Your task to perform on an android device: Play the last video I watched on Youtube Image 0: 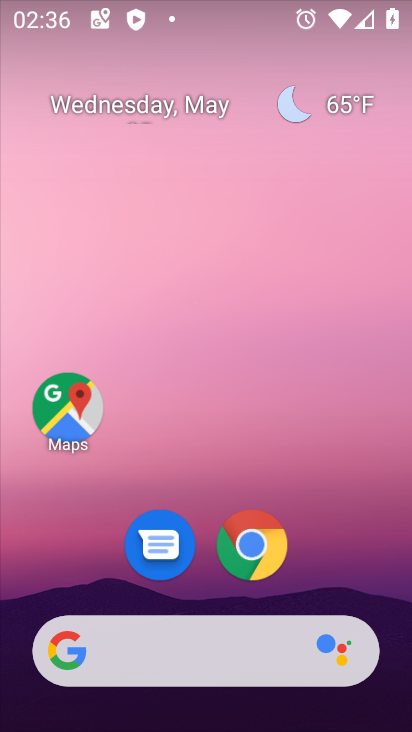
Step 0: drag from (276, 213) to (213, 38)
Your task to perform on an android device: Play the last video I watched on Youtube Image 1: 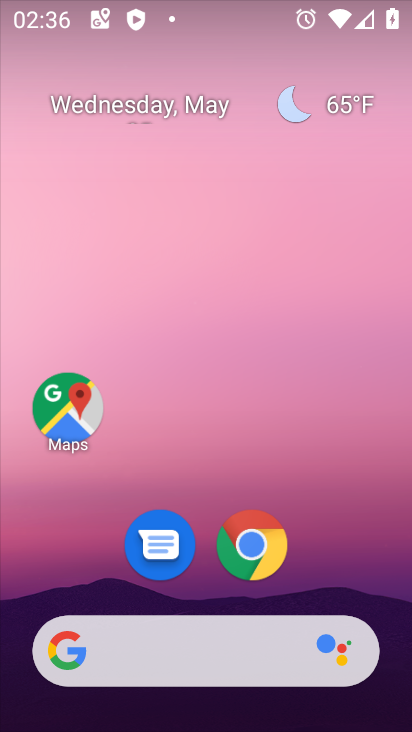
Step 1: drag from (322, 434) to (215, 52)
Your task to perform on an android device: Play the last video I watched on Youtube Image 2: 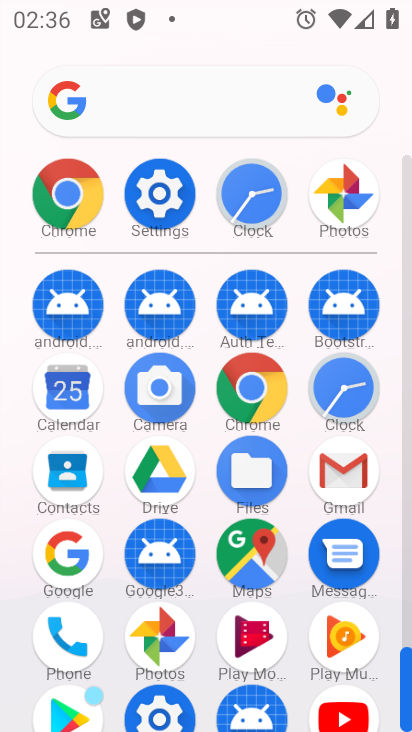
Step 2: drag from (309, 629) to (284, 184)
Your task to perform on an android device: Play the last video I watched on Youtube Image 3: 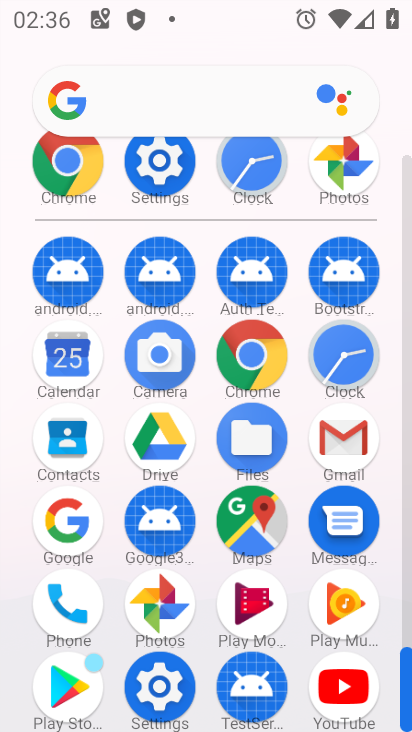
Step 3: click (336, 694)
Your task to perform on an android device: Play the last video I watched on Youtube Image 4: 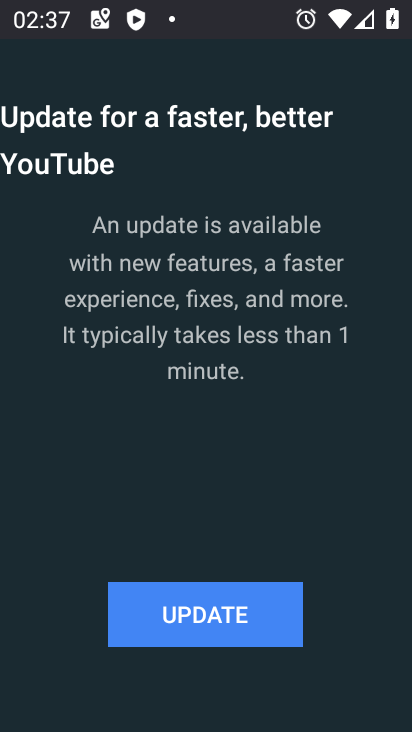
Step 4: click (248, 613)
Your task to perform on an android device: Play the last video I watched on Youtube Image 5: 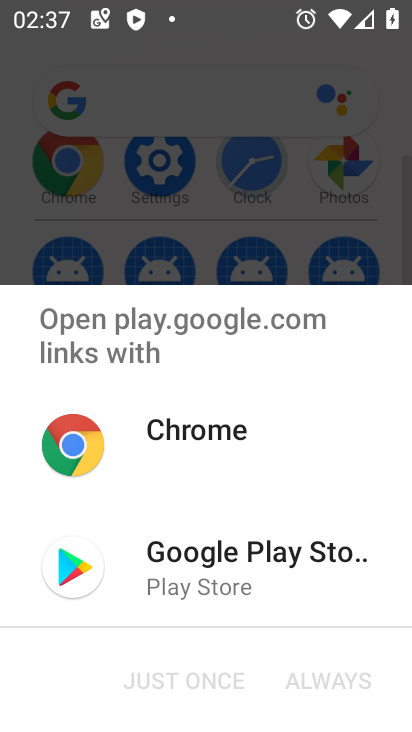
Step 5: click (194, 572)
Your task to perform on an android device: Play the last video I watched on Youtube Image 6: 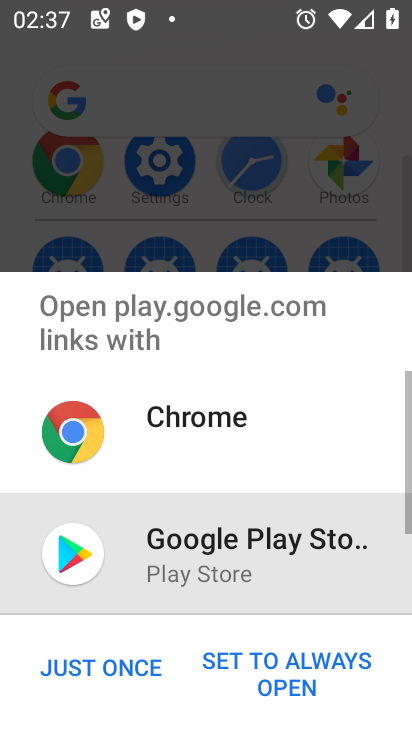
Step 6: press home button
Your task to perform on an android device: Play the last video I watched on Youtube Image 7: 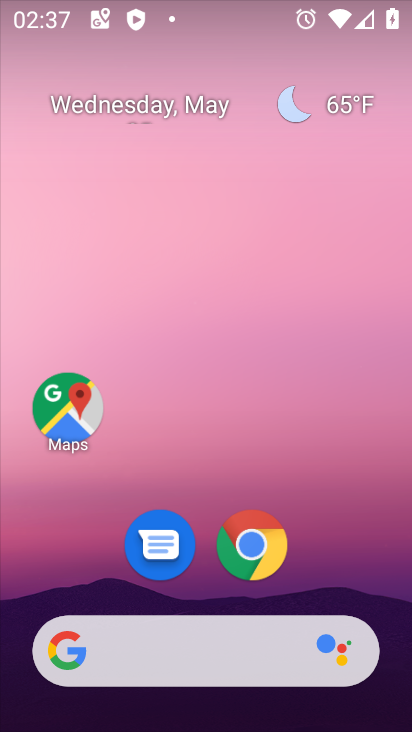
Step 7: drag from (345, 534) to (213, 15)
Your task to perform on an android device: Play the last video I watched on Youtube Image 8: 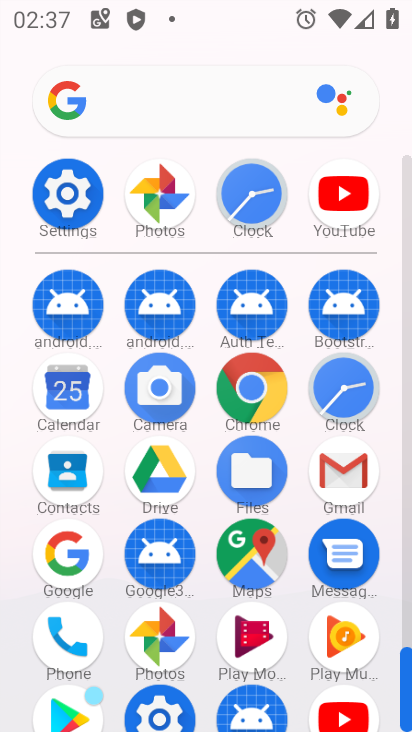
Step 8: click (346, 202)
Your task to perform on an android device: Play the last video I watched on Youtube Image 9: 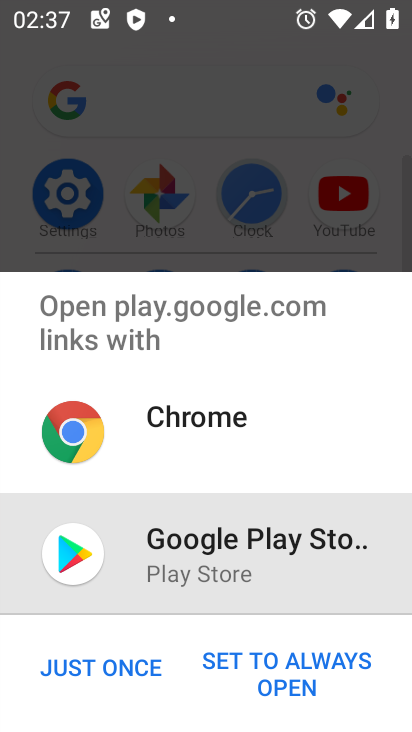
Step 9: click (141, 665)
Your task to perform on an android device: Play the last video I watched on Youtube Image 10: 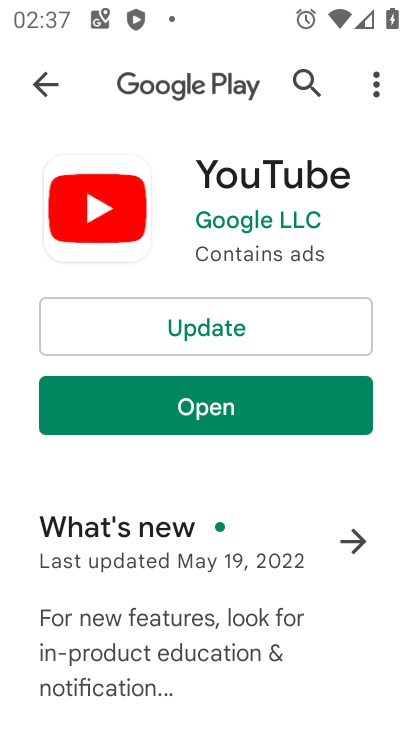
Step 10: click (254, 327)
Your task to perform on an android device: Play the last video I watched on Youtube Image 11: 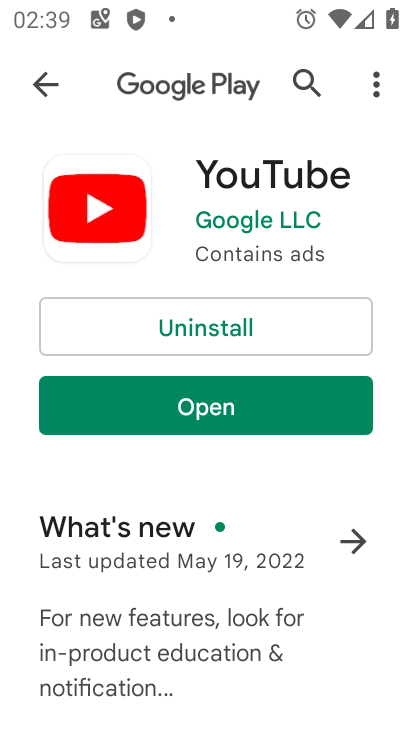
Step 11: click (258, 407)
Your task to perform on an android device: Play the last video I watched on Youtube Image 12: 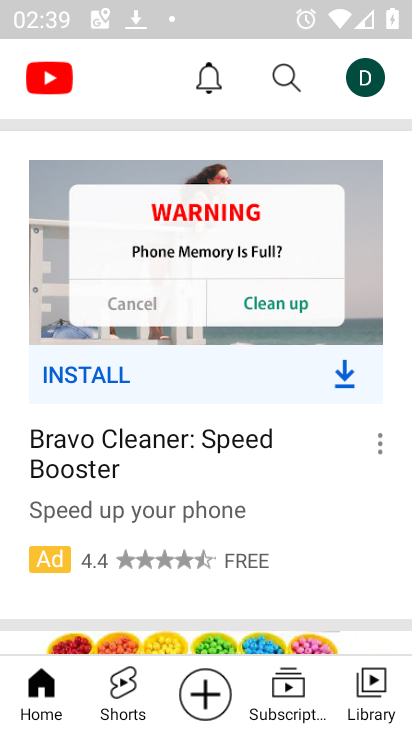
Step 12: click (374, 690)
Your task to perform on an android device: Play the last video I watched on Youtube Image 13: 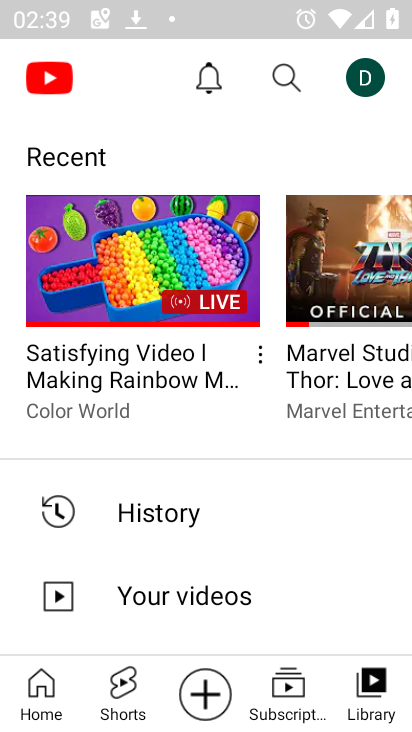
Step 13: click (144, 277)
Your task to perform on an android device: Play the last video I watched on Youtube Image 14: 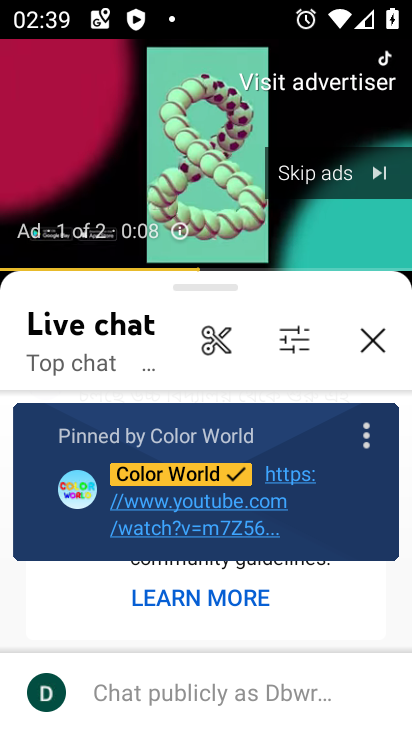
Step 14: click (311, 169)
Your task to perform on an android device: Play the last video I watched on Youtube Image 15: 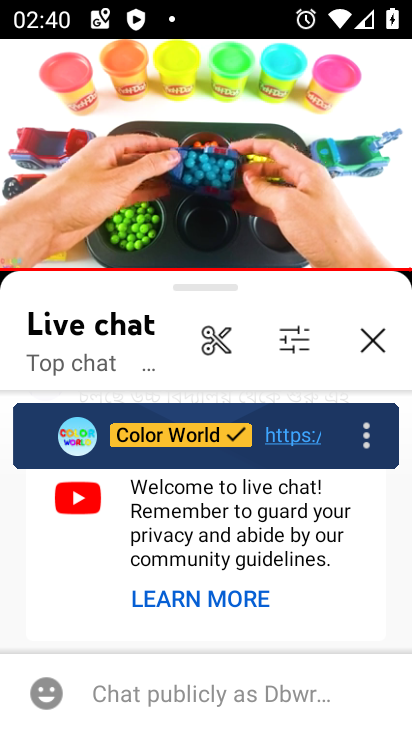
Step 15: click (212, 188)
Your task to perform on an android device: Play the last video I watched on Youtube Image 16: 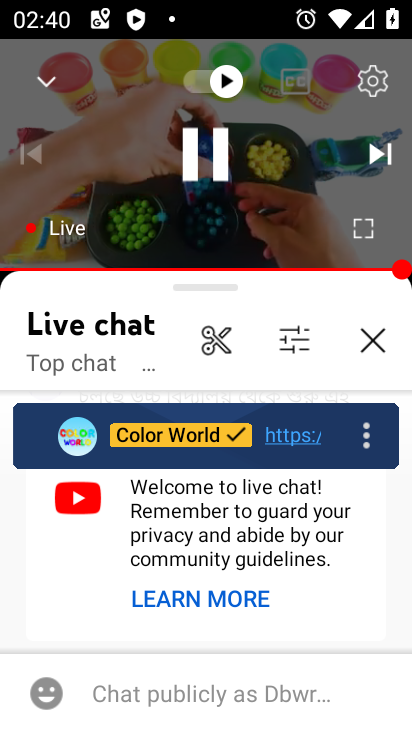
Step 16: task complete